Your task to perform on an android device: Open maps Image 0: 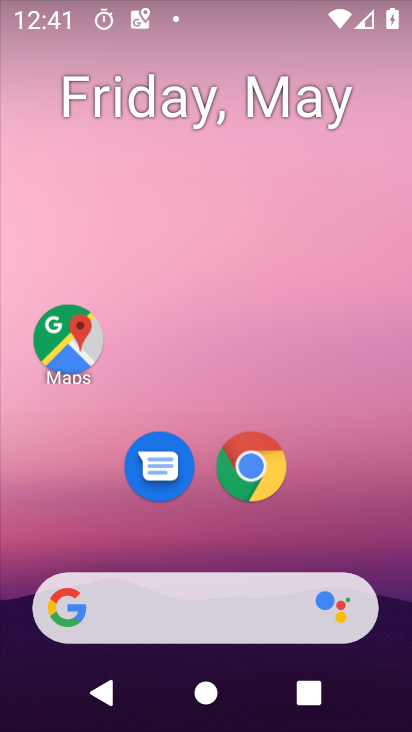
Step 0: click (81, 348)
Your task to perform on an android device: Open maps Image 1: 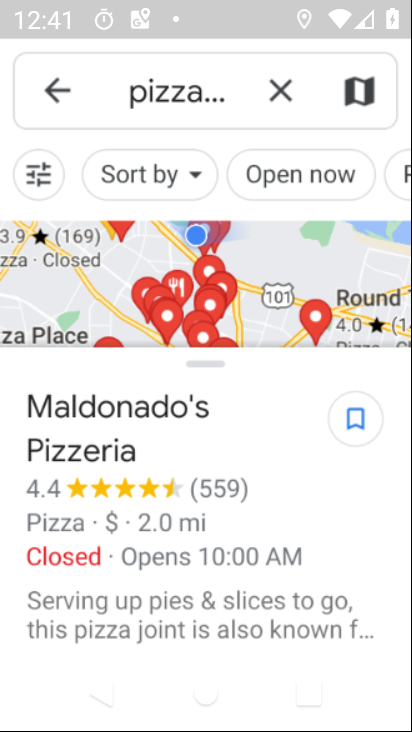
Step 1: click (286, 82)
Your task to perform on an android device: Open maps Image 2: 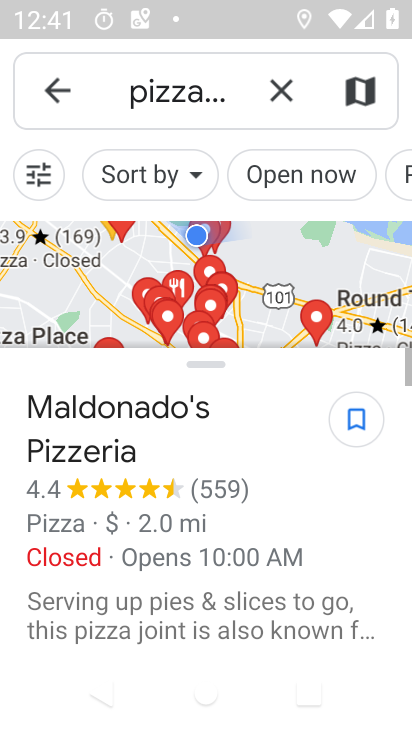
Step 2: click (286, 82)
Your task to perform on an android device: Open maps Image 3: 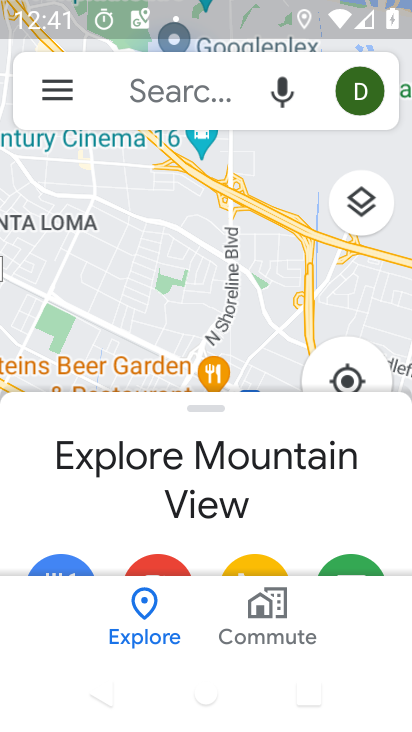
Step 3: task complete